Your task to perform on an android device: Go to sound settings Image 0: 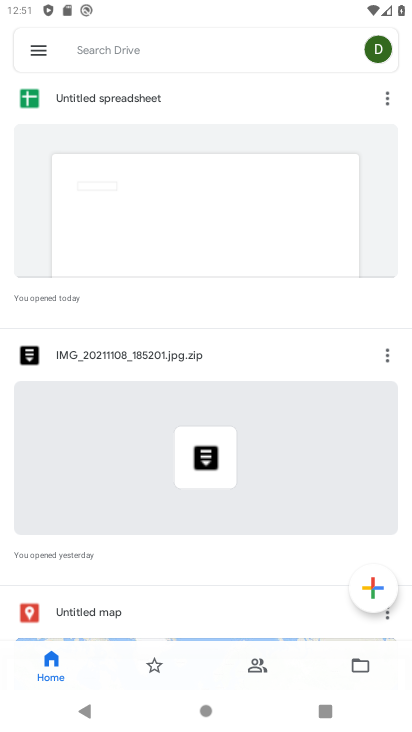
Step 0: press home button
Your task to perform on an android device: Go to sound settings Image 1: 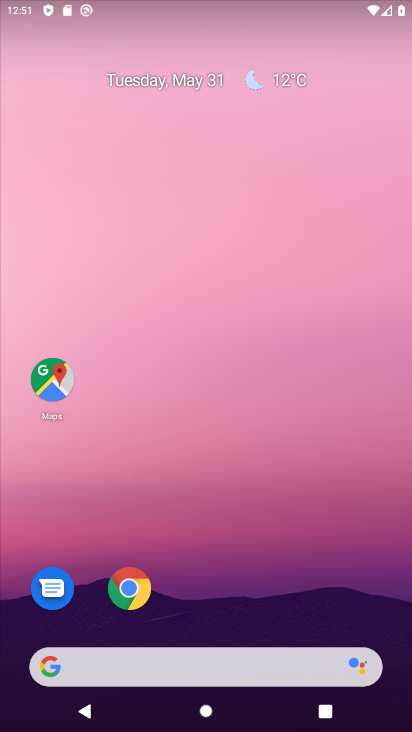
Step 1: drag from (381, 641) to (251, 39)
Your task to perform on an android device: Go to sound settings Image 2: 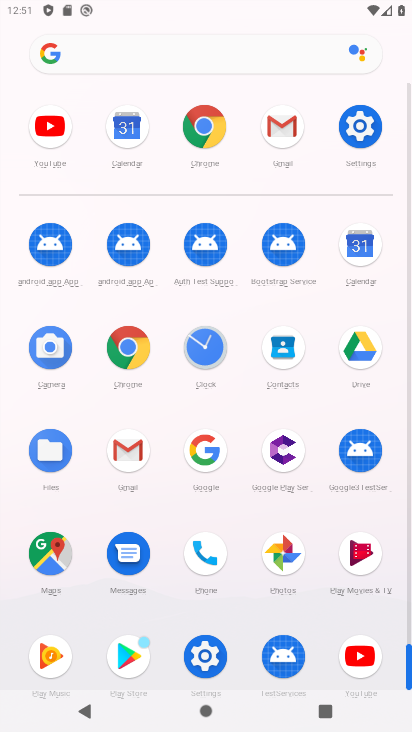
Step 2: click (367, 130)
Your task to perform on an android device: Go to sound settings Image 3: 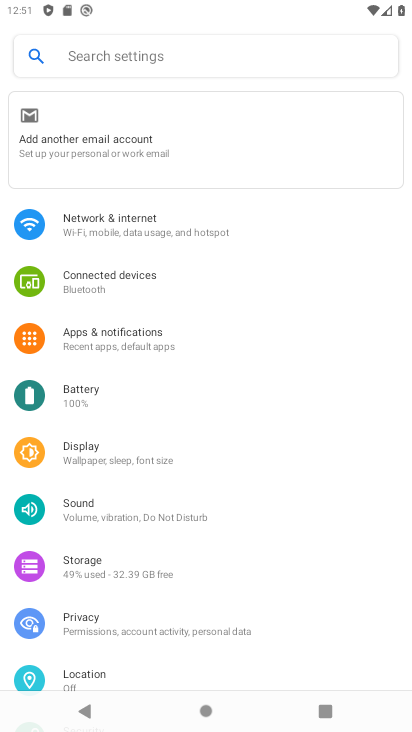
Step 3: click (121, 515)
Your task to perform on an android device: Go to sound settings Image 4: 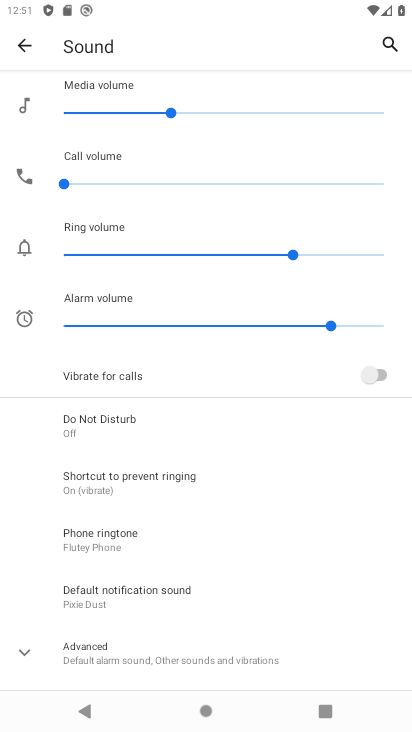
Step 4: task complete